Your task to perform on an android device: Is it going to rain this weekend? Image 0: 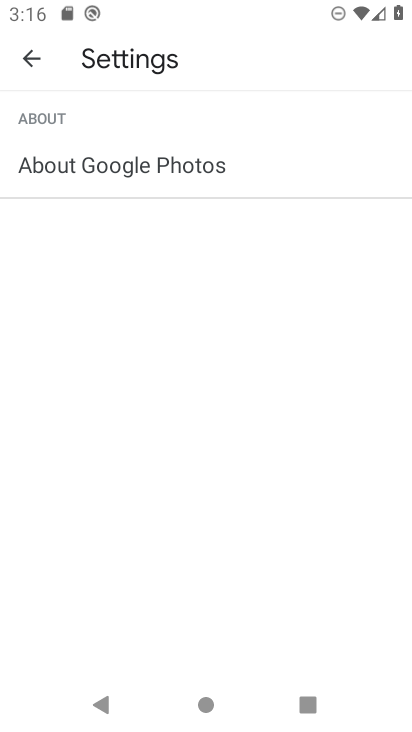
Step 0: press back button
Your task to perform on an android device: Is it going to rain this weekend? Image 1: 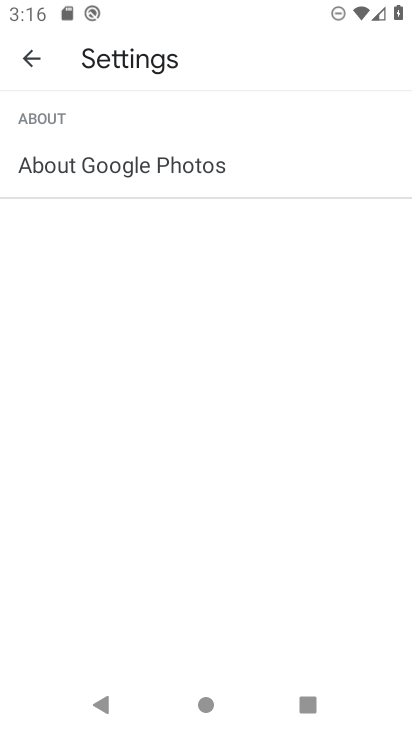
Step 1: press home button
Your task to perform on an android device: Is it going to rain this weekend? Image 2: 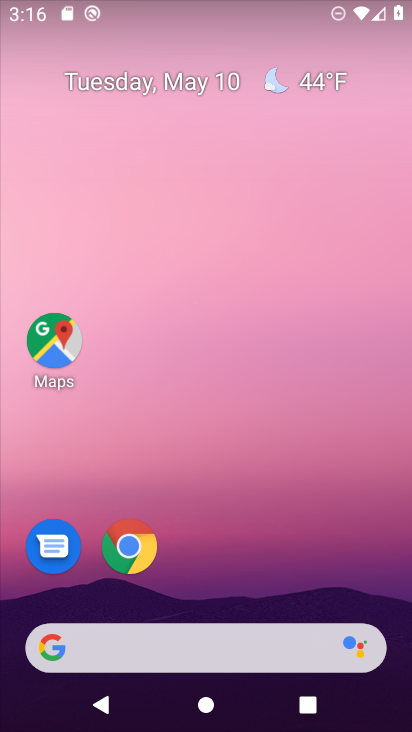
Step 2: drag from (255, 517) to (285, 108)
Your task to perform on an android device: Is it going to rain this weekend? Image 3: 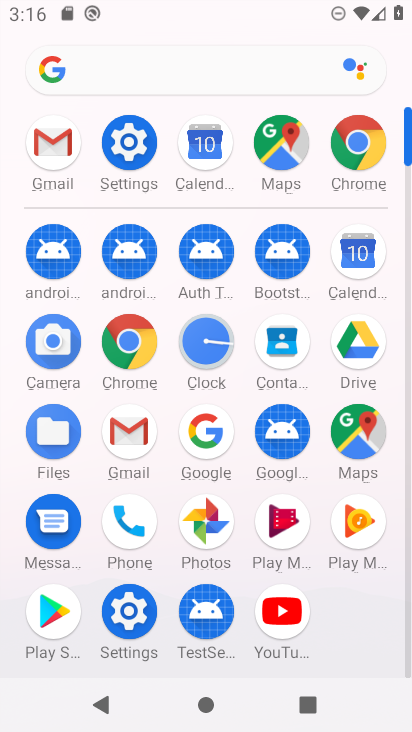
Step 3: click (370, 177)
Your task to perform on an android device: Is it going to rain this weekend? Image 4: 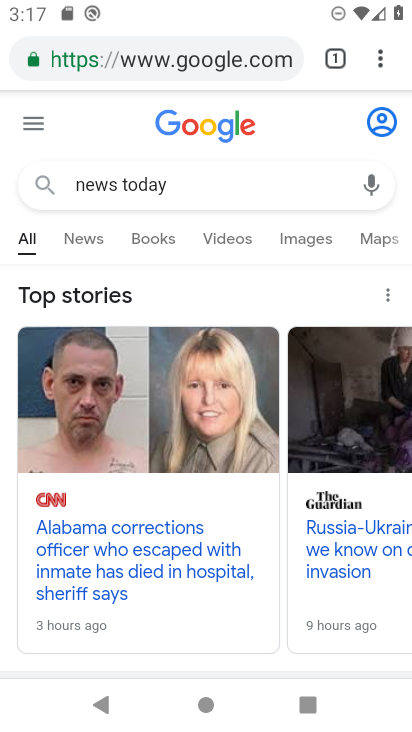
Step 4: click (143, 49)
Your task to perform on an android device: Is it going to rain this weekend? Image 5: 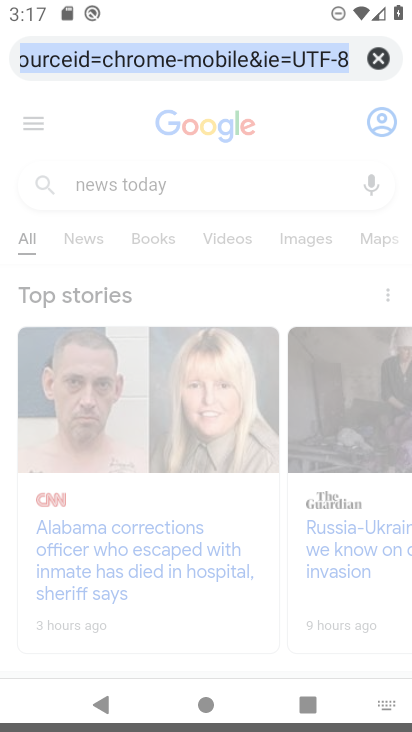
Step 5: click (218, 67)
Your task to perform on an android device: Is it going to rain this weekend? Image 6: 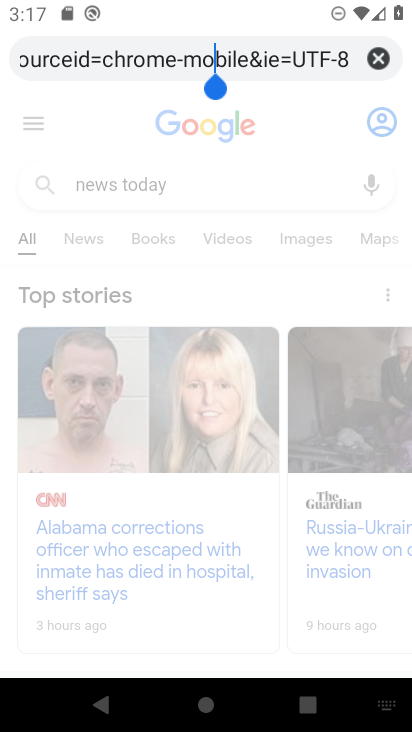
Step 6: click (385, 59)
Your task to perform on an android device: Is it going to rain this weekend? Image 7: 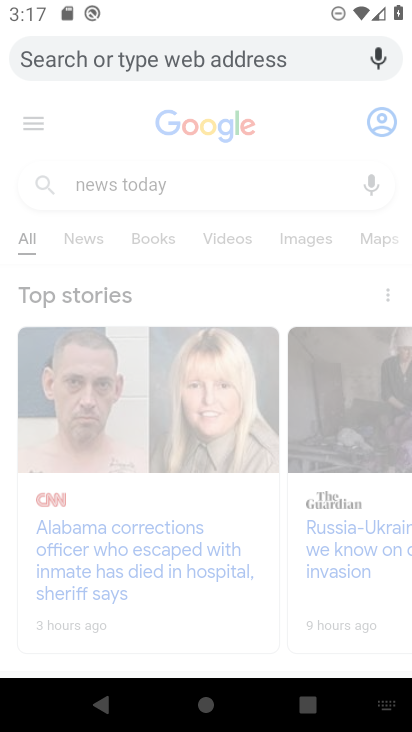
Step 7: type "is it going to rain this weekend"
Your task to perform on an android device: Is it going to rain this weekend? Image 8: 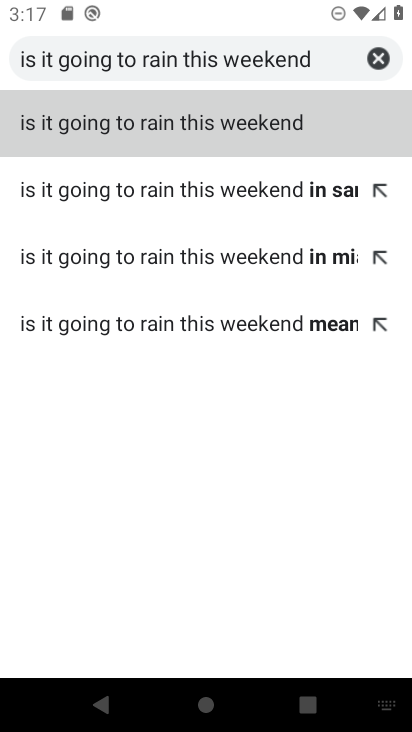
Step 8: click (268, 124)
Your task to perform on an android device: Is it going to rain this weekend? Image 9: 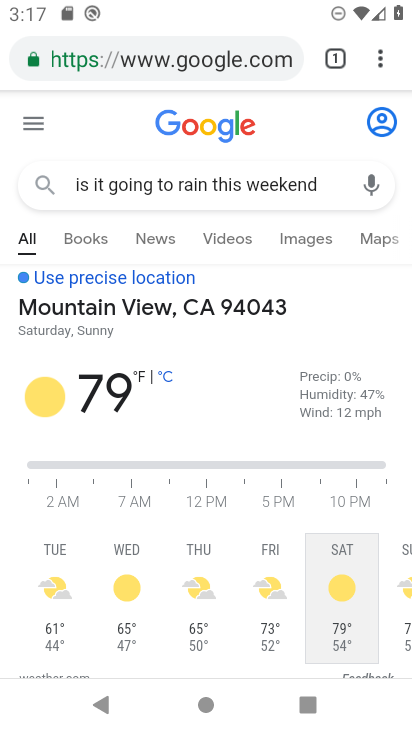
Step 9: task complete